Your task to perform on an android device: check android version Image 0: 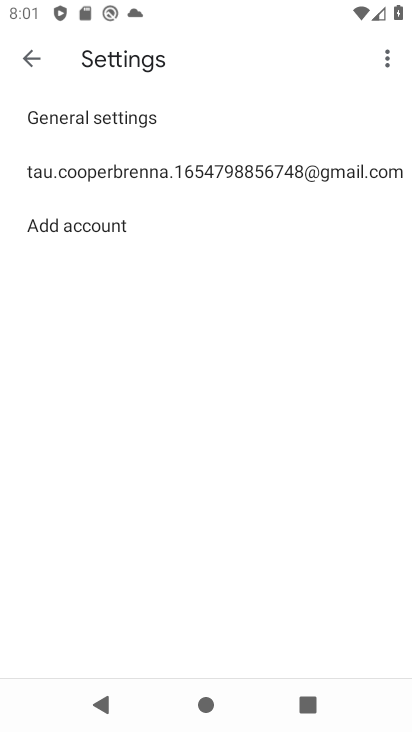
Step 0: press home button
Your task to perform on an android device: check android version Image 1: 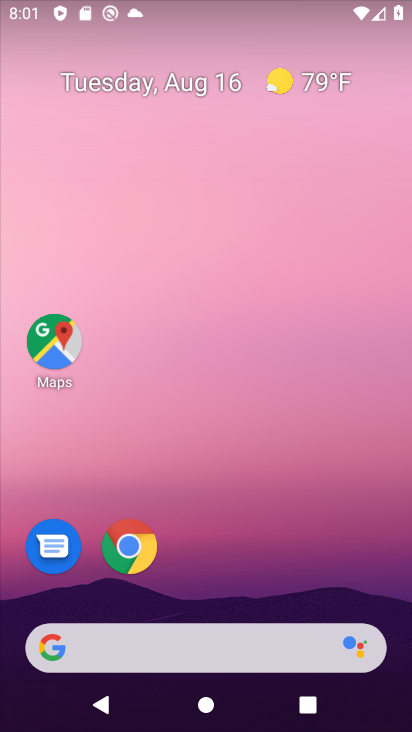
Step 1: drag from (197, 488) to (197, 152)
Your task to perform on an android device: check android version Image 2: 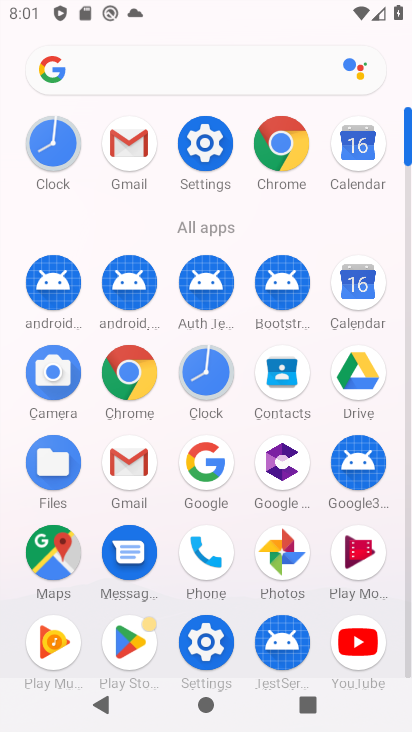
Step 2: click (196, 142)
Your task to perform on an android device: check android version Image 3: 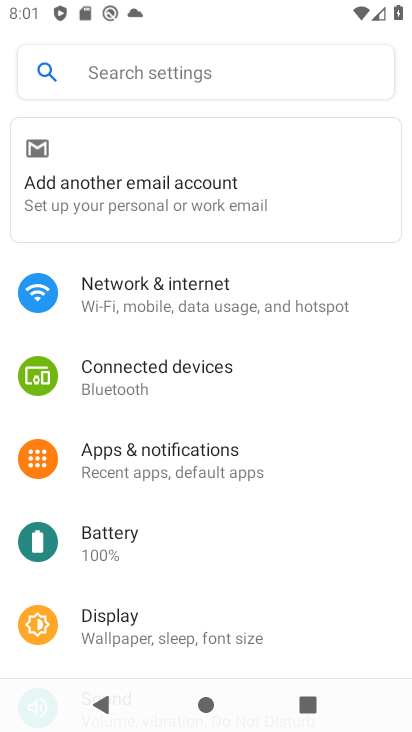
Step 3: drag from (186, 637) to (186, 288)
Your task to perform on an android device: check android version Image 4: 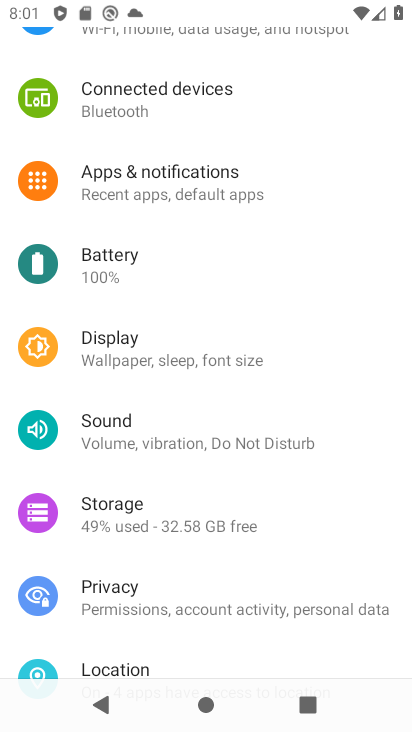
Step 4: drag from (163, 546) to (162, 291)
Your task to perform on an android device: check android version Image 5: 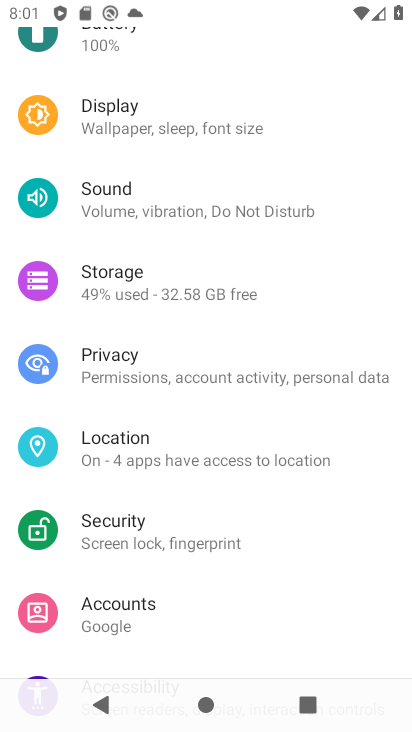
Step 5: drag from (200, 614) to (200, 265)
Your task to perform on an android device: check android version Image 6: 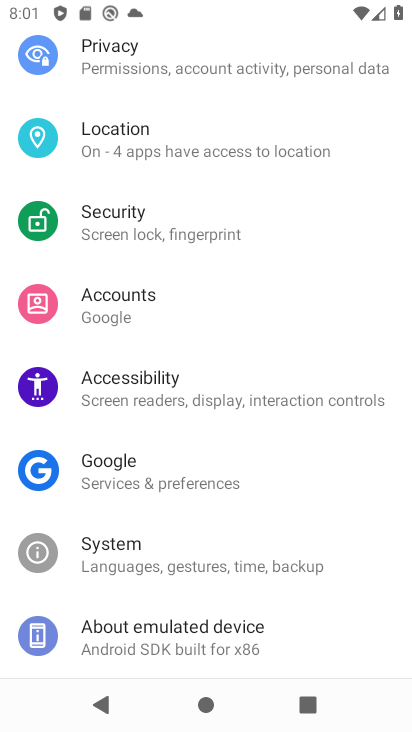
Step 6: click (132, 649)
Your task to perform on an android device: check android version Image 7: 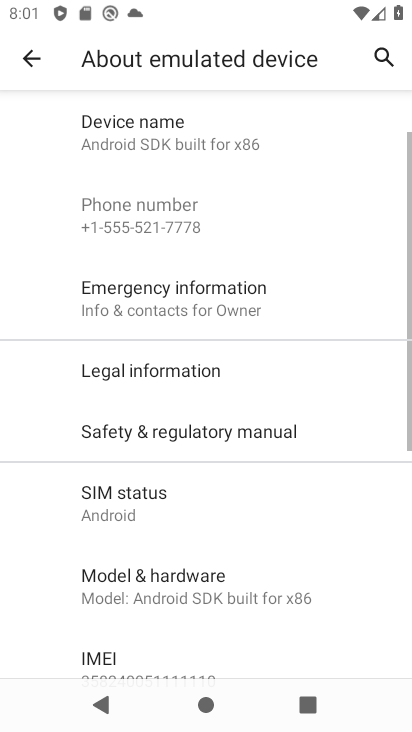
Step 7: drag from (110, 641) to (113, 363)
Your task to perform on an android device: check android version Image 8: 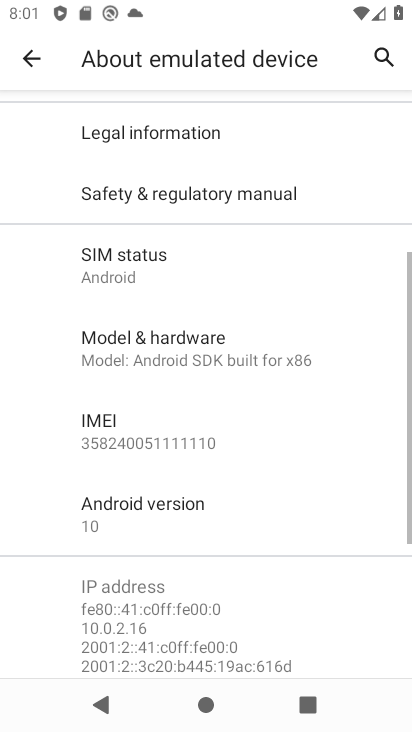
Step 8: click (134, 532)
Your task to perform on an android device: check android version Image 9: 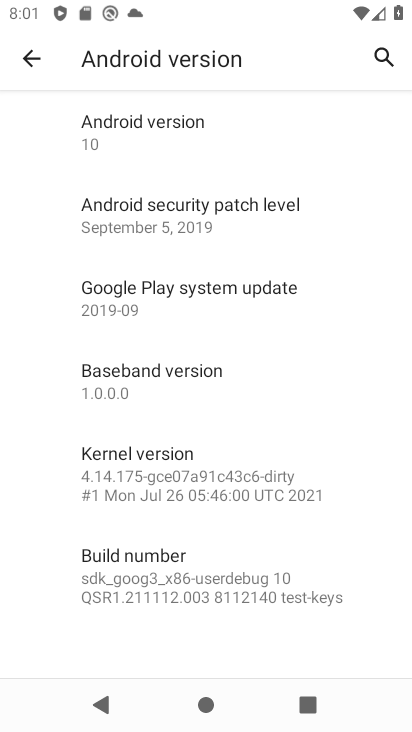
Step 9: task complete